Your task to perform on an android device: Go to privacy settings Image 0: 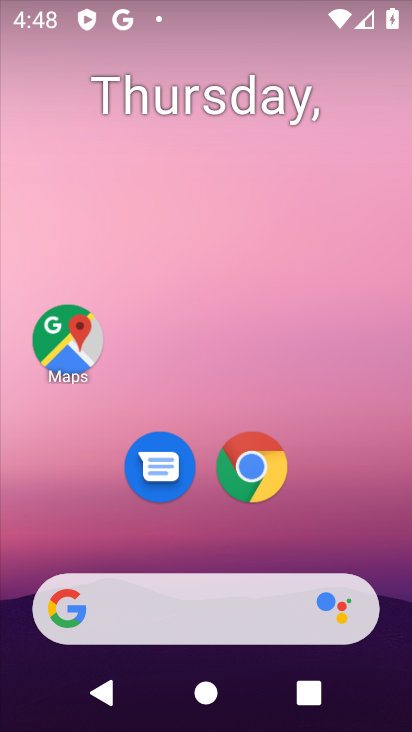
Step 0: drag from (361, 518) to (390, 70)
Your task to perform on an android device: Go to privacy settings Image 1: 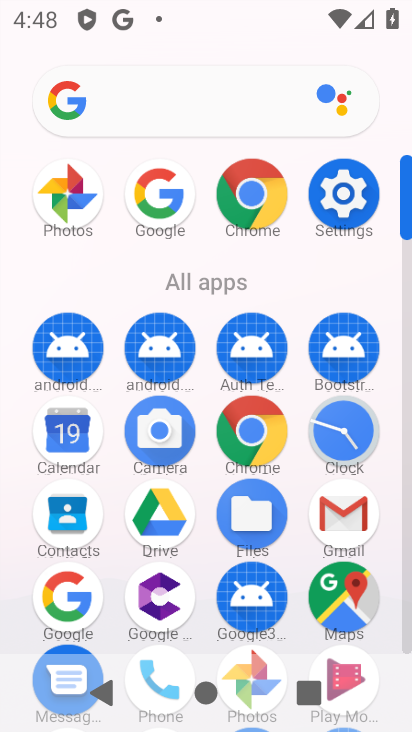
Step 1: click (343, 205)
Your task to perform on an android device: Go to privacy settings Image 2: 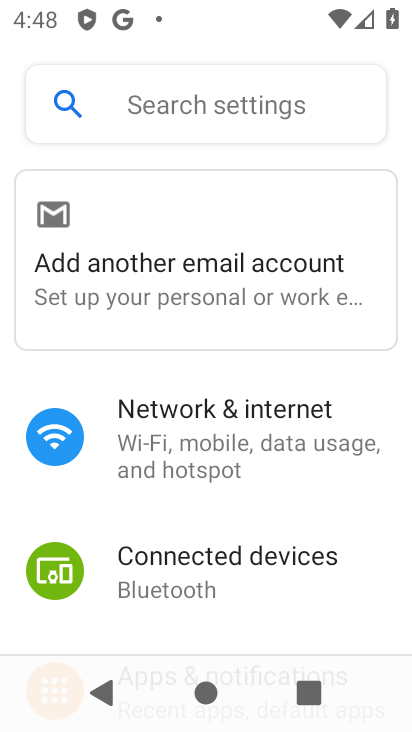
Step 2: drag from (276, 528) to (271, 209)
Your task to perform on an android device: Go to privacy settings Image 3: 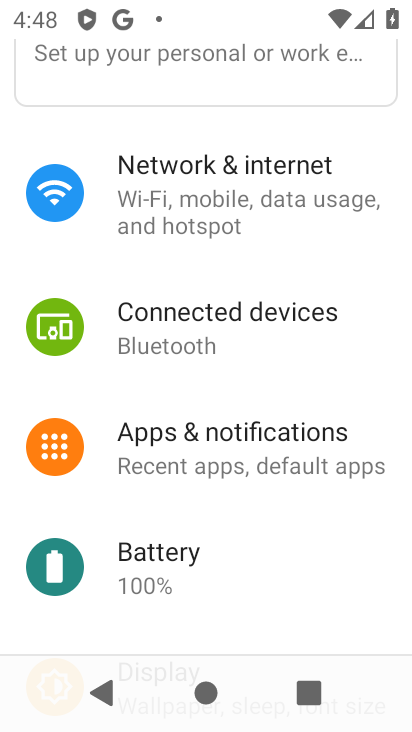
Step 3: drag from (274, 485) to (267, 53)
Your task to perform on an android device: Go to privacy settings Image 4: 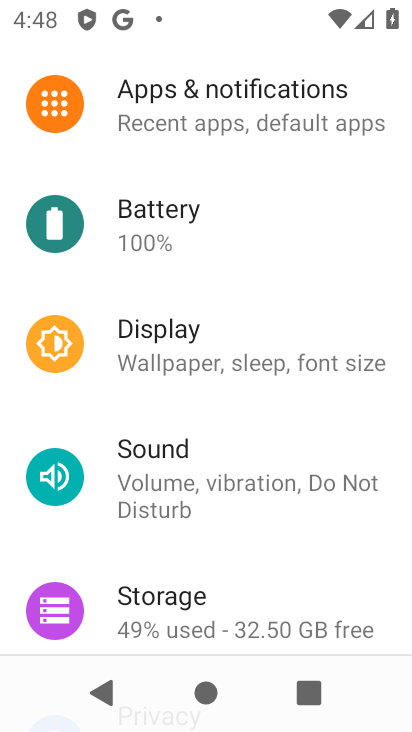
Step 4: drag from (268, 543) to (320, 207)
Your task to perform on an android device: Go to privacy settings Image 5: 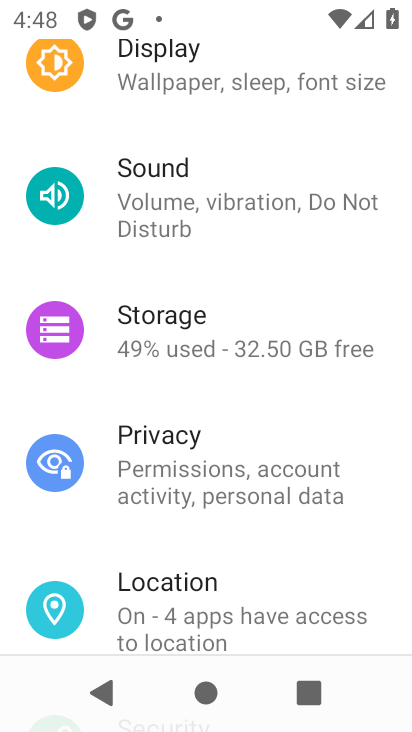
Step 5: click (208, 427)
Your task to perform on an android device: Go to privacy settings Image 6: 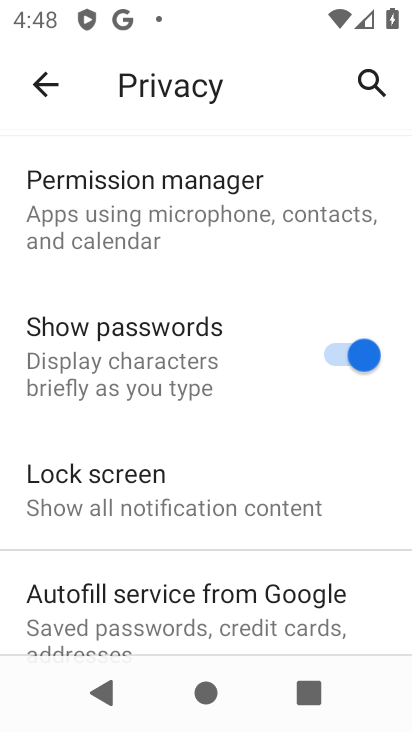
Step 6: task complete